Your task to perform on an android device: turn on data saver in the chrome app Image 0: 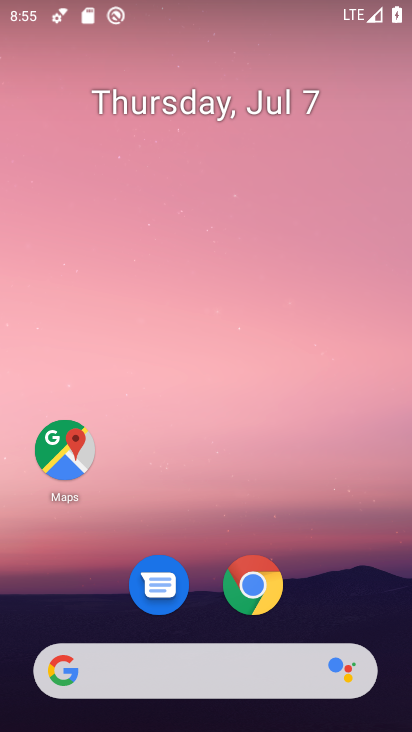
Step 0: click (261, 587)
Your task to perform on an android device: turn on data saver in the chrome app Image 1: 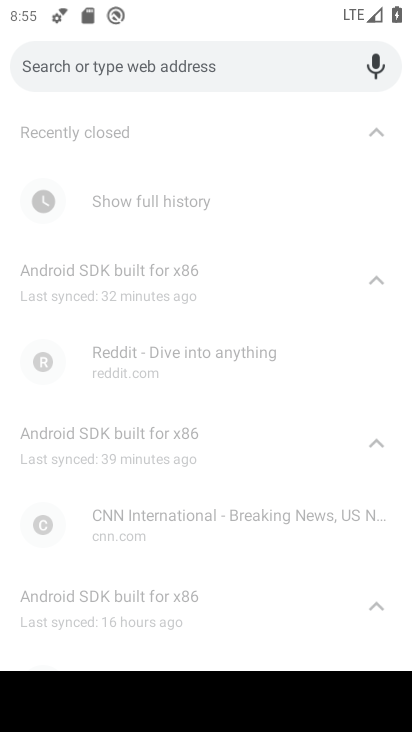
Step 1: press back button
Your task to perform on an android device: turn on data saver in the chrome app Image 2: 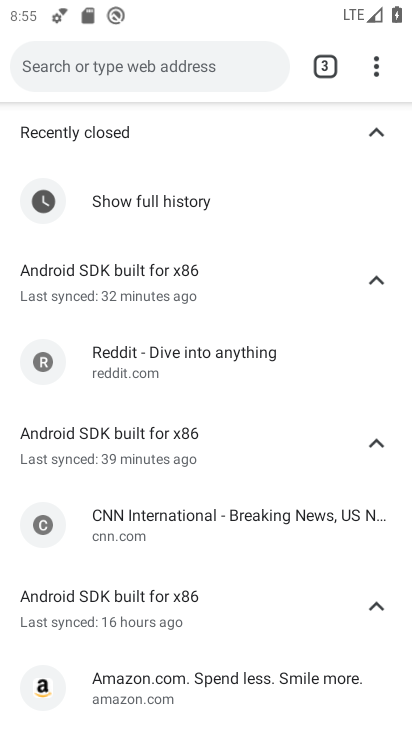
Step 2: click (377, 70)
Your task to perform on an android device: turn on data saver in the chrome app Image 3: 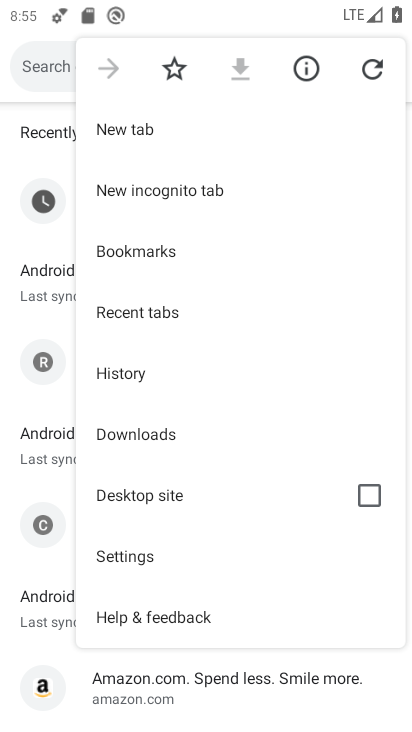
Step 3: click (135, 558)
Your task to perform on an android device: turn on data saver in the chrome app Image 4: 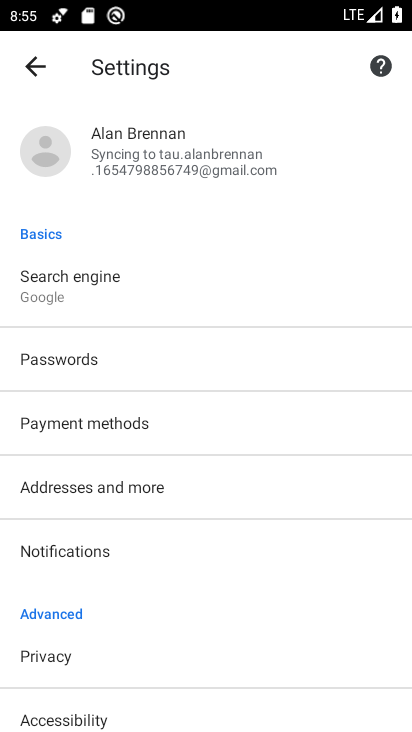
Step 4: drag from (203, 646) to (232, 186)
Your task to perform on an android device: turn on data saver in the chrome app Image 5: 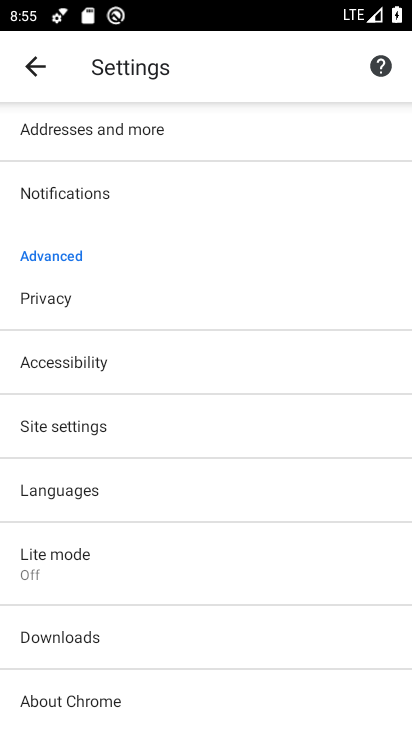
Step 5: click (148, 575)
Your task to perform on an android device: turn on data saver in the chrome app Image 6: 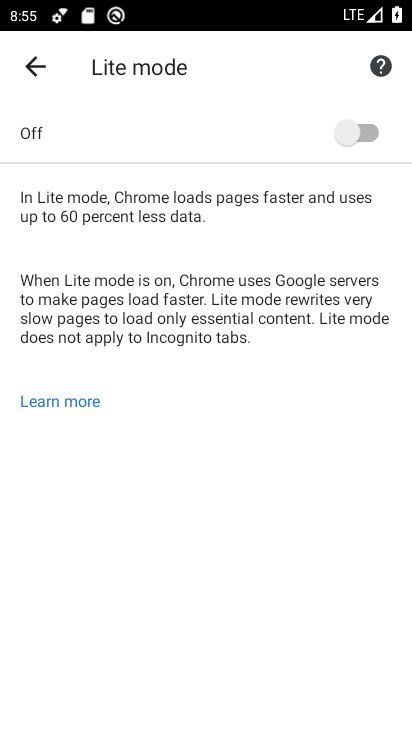
Step 6: click (354, 133)
Your task to perform on an android device: turn on data saver in the chrome app Image 7: 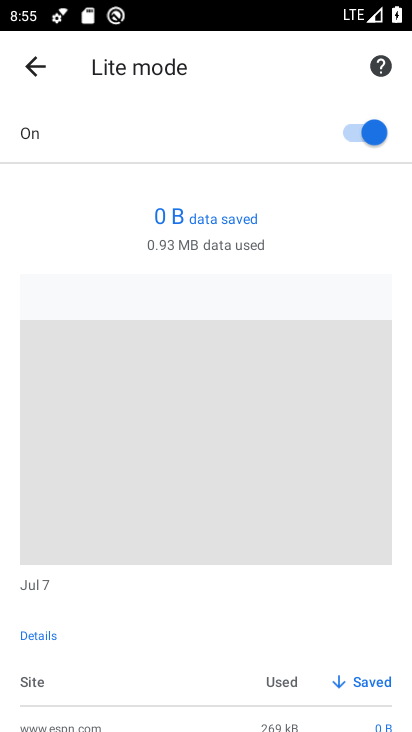
Step 7: task complete